Your task to perform on an android device: turn smart compose on in the gmail app Image 0: 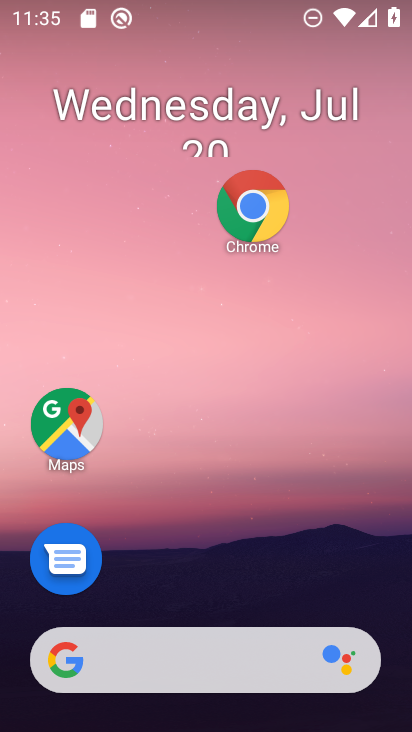
Step 0: drag from (213, 339) to (250, 163)
Your task to perform on an android device: turn smart compose on in the gmail app Image 1: 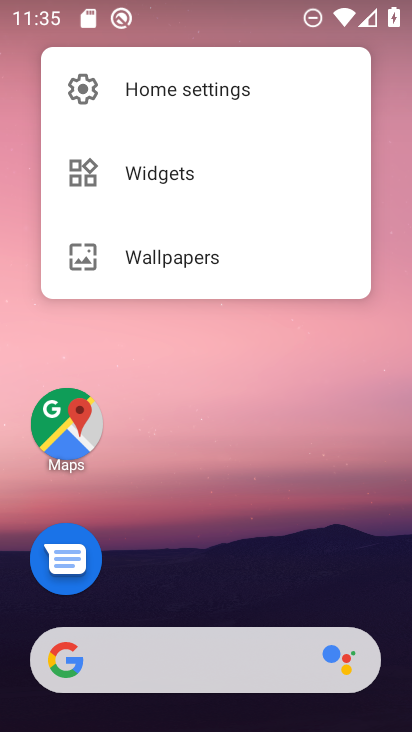
Step 1: click (317, 474)
Your task to perform on an android device: turn smart compose on in the gmail app Image 2: 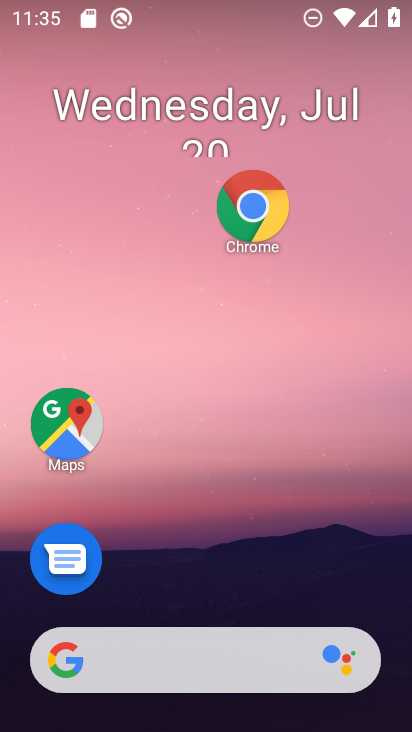
Step 2: drag from (254, 641) to (287, 133)
Your task to perform on an android device: turn smart compose on in the gmail app Image 3: 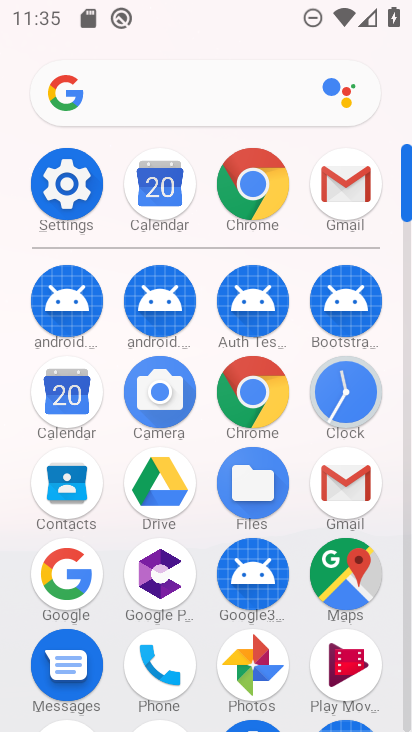
Step 3: click (328, 495)
Your task to perform on an android device: turn smart compose on in the gmail app Image 4: 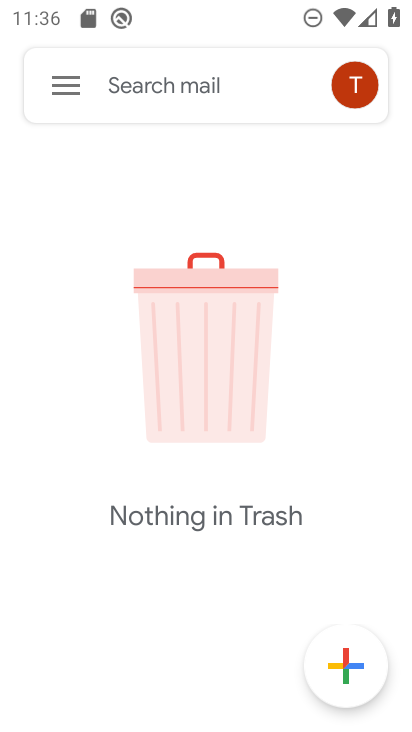
Step 4: click (66, 87)
Your task to perform on an android device: turn smart compose on in the gmail app Image 5: 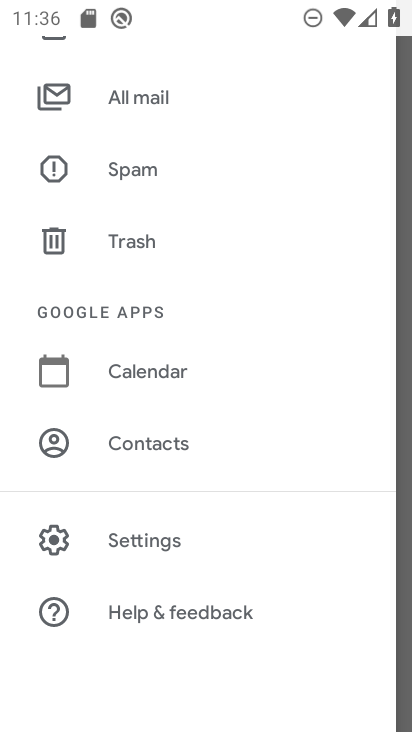
Step 5: click (116, 545)
Your task to perform on an android device: turn smart compose on in the gmail app Image 6: 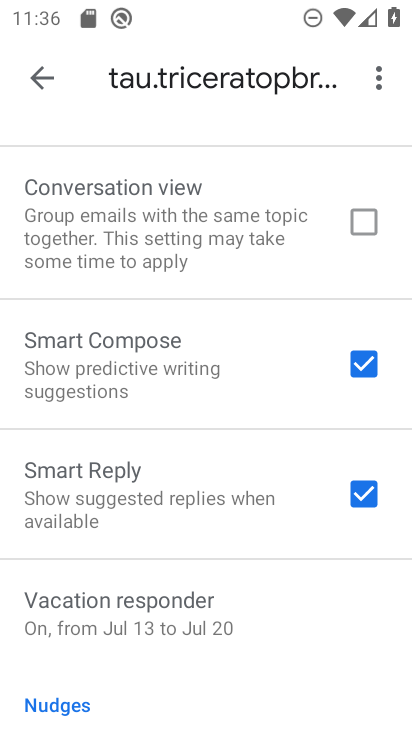
Step 6: task complete